Your task to perform on an android device: change the clock style Image 0: 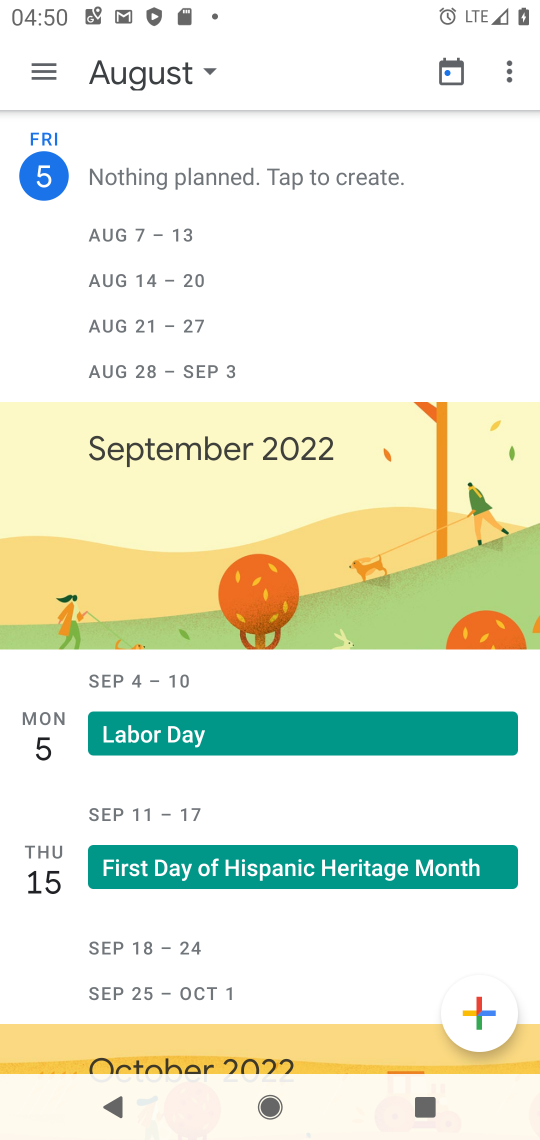
Step 0: press back button
Your task to perform on an android device: change the clock style Image 1: 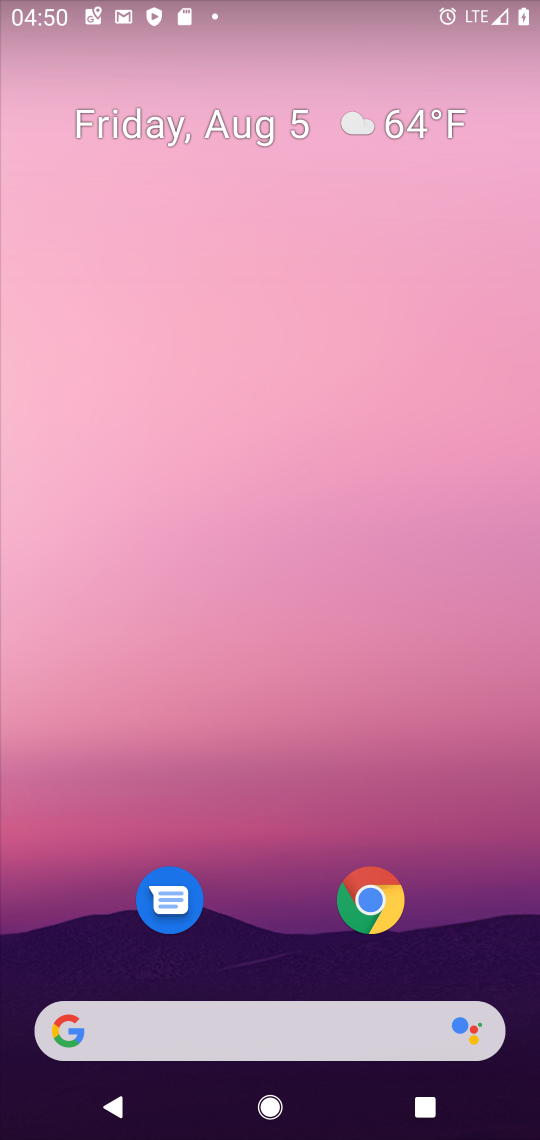
Step 1: drag from (231, 794) to (315, 36)
Your task to perform on an android device: change the clock style Image 2: 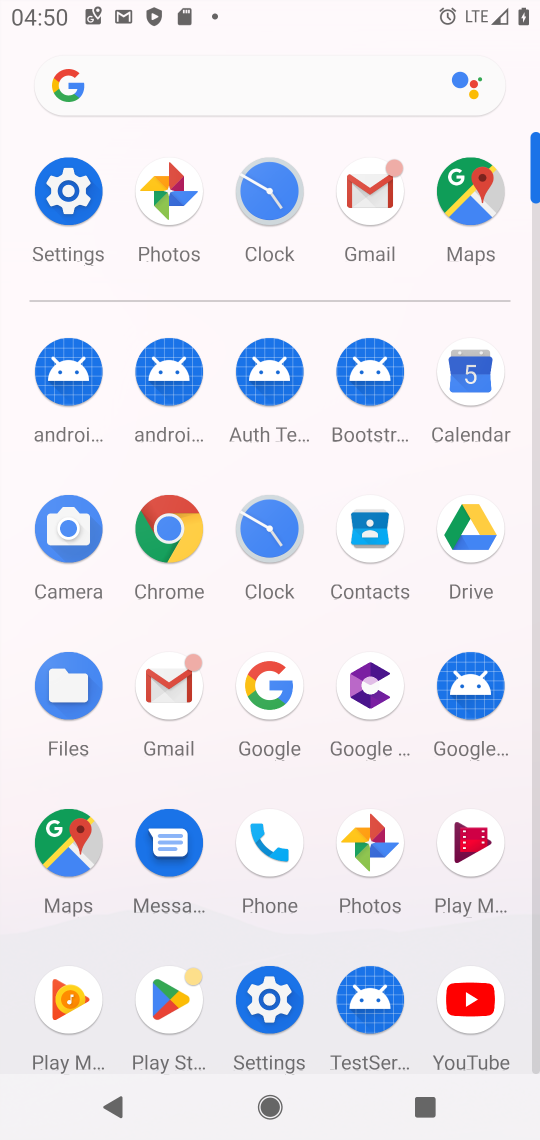
Step 2: click (270, 175)
Your task to perform on an android device: change the clock style Image 3: 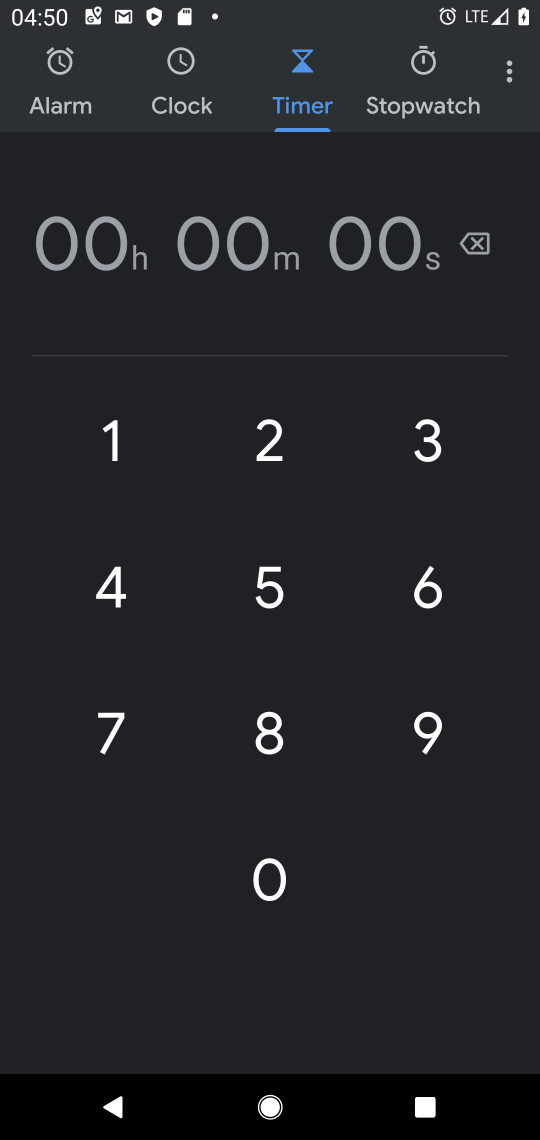
Step 3: click (508, 85)
Your task to perform on an android device: change the clock style Image 4: 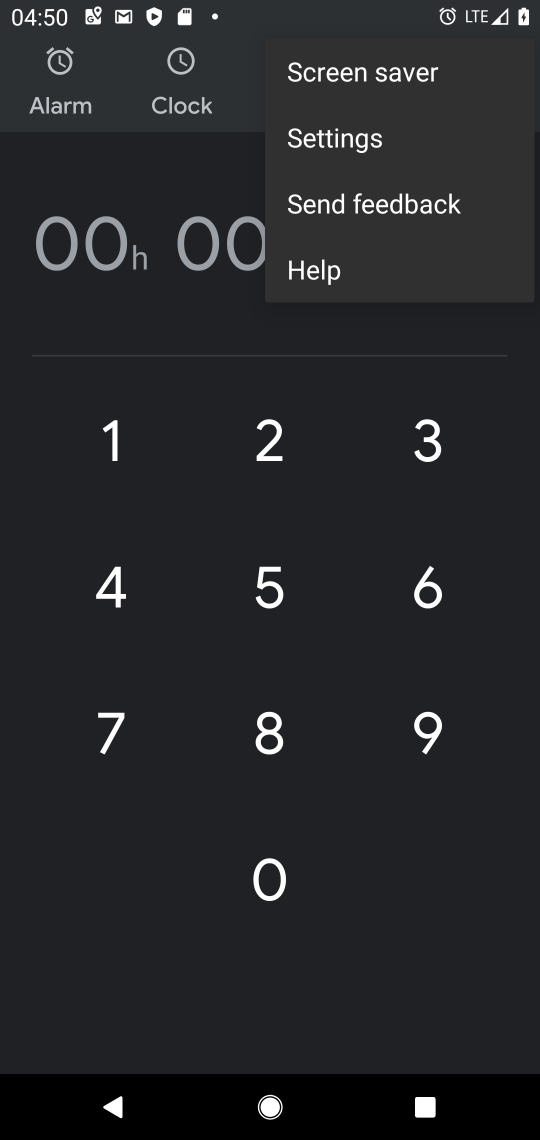
Step 4: click (350, 139)
Your task to perform on an android device: change the clock style Image 5: 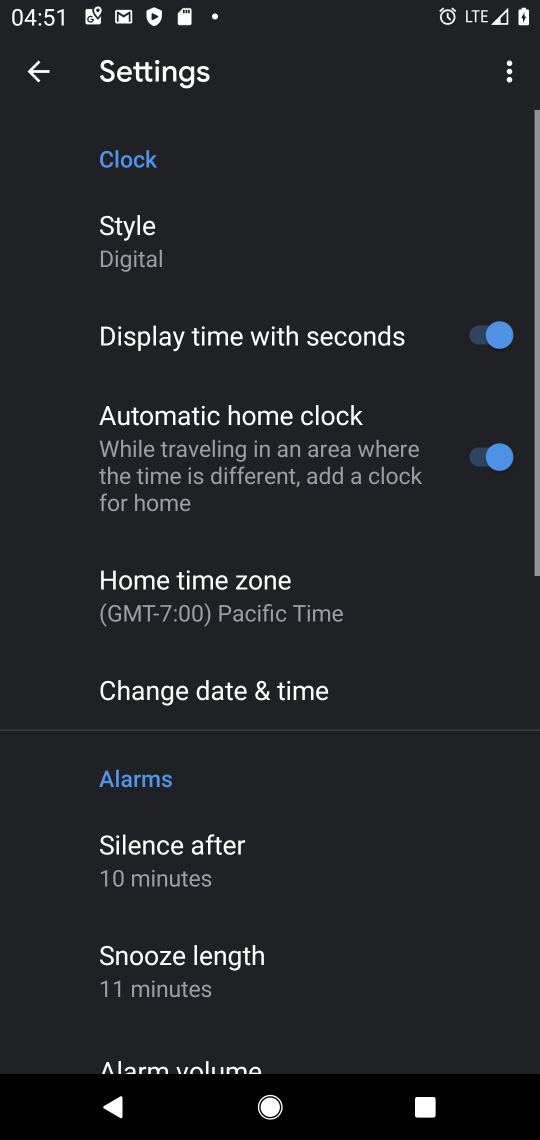
Step 5: click (137, 233)
Your task to perform on an android device: change the clock style Image 6: 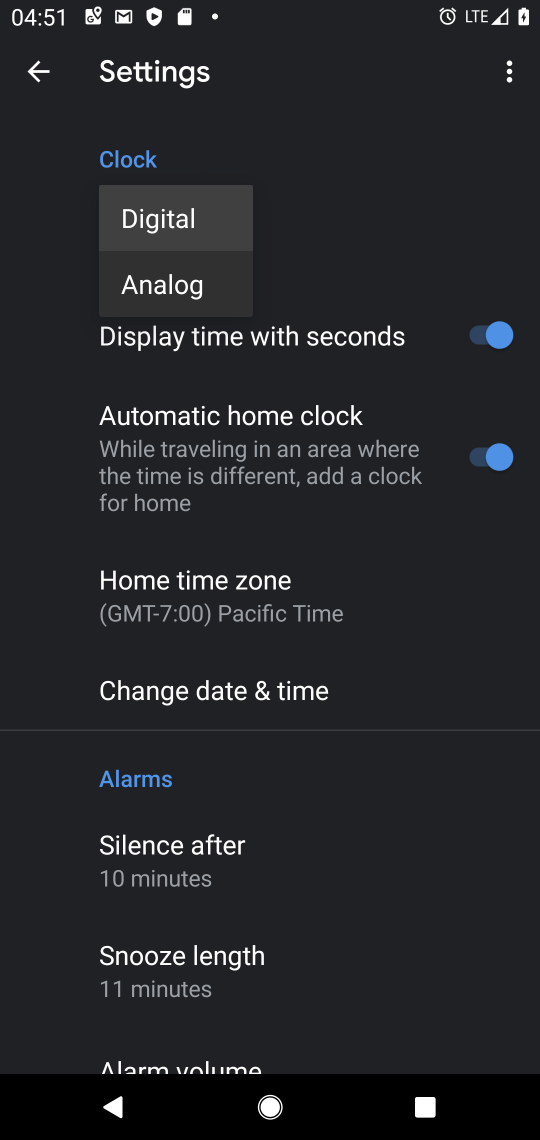
Step 6: click (157, 278)
Your task to perform on an android device: change the clock style Image 7: 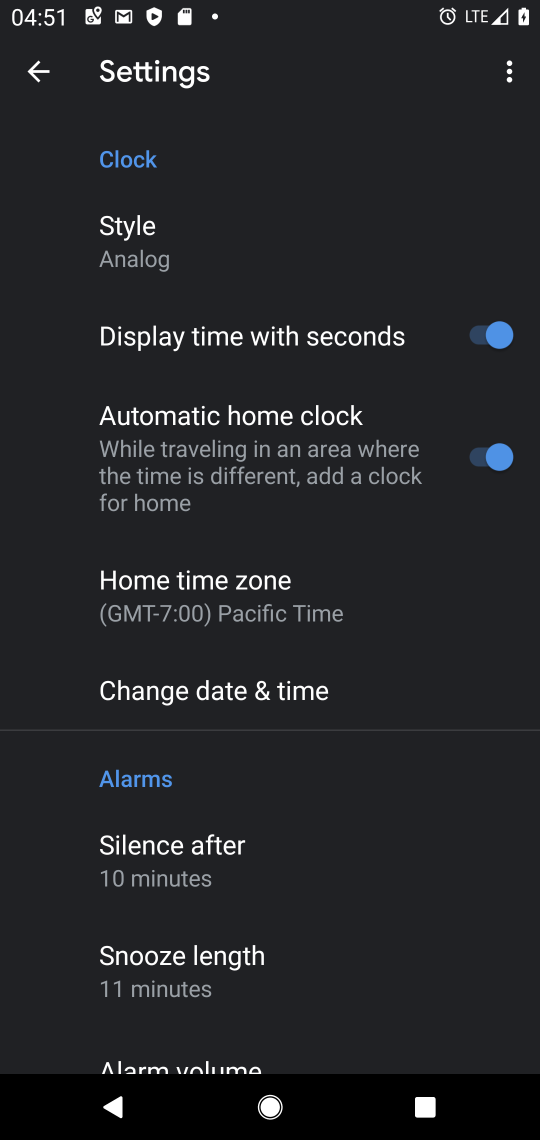
Step 7: task complete